Your task to perform on an android device: uninstall "Cash App" Image 0: 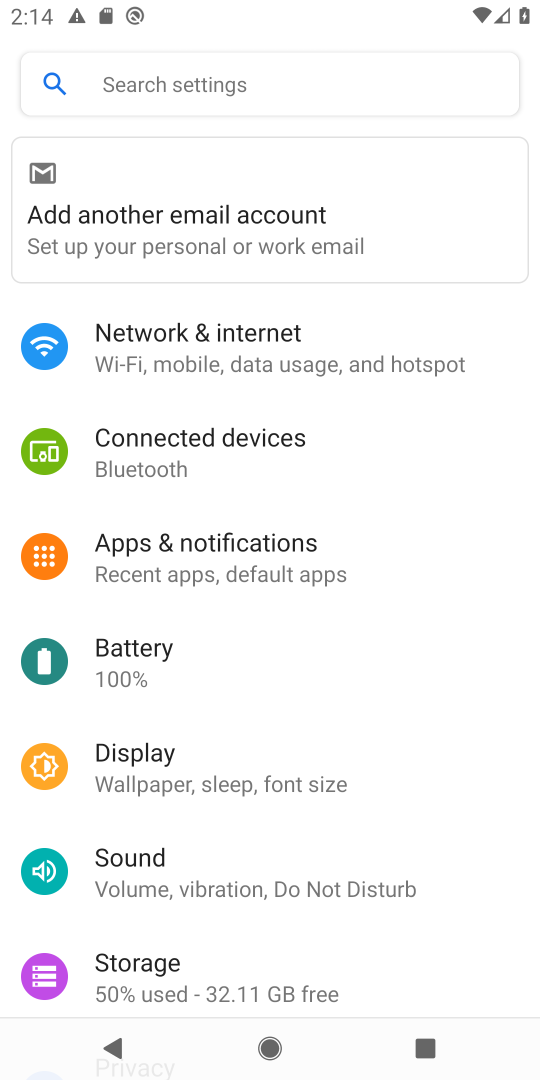
Step 0: press home button
Your task to perform on an android device: uninstall "Cash App" Image 1: 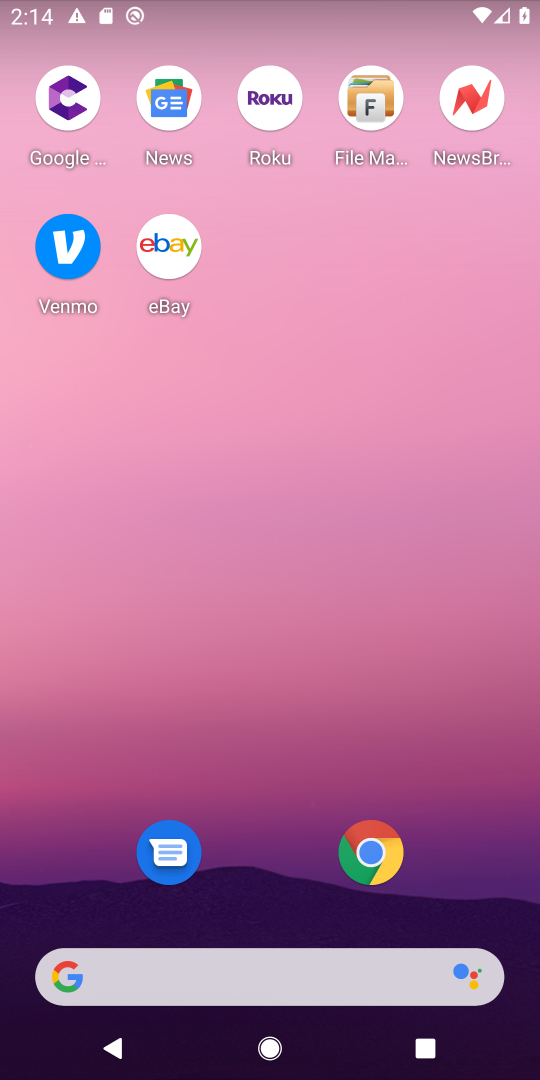
Step 1: drag from (266, 808) to (314, 21)
Your task to perform on an android device: uninstall "Cash App" Image 2: 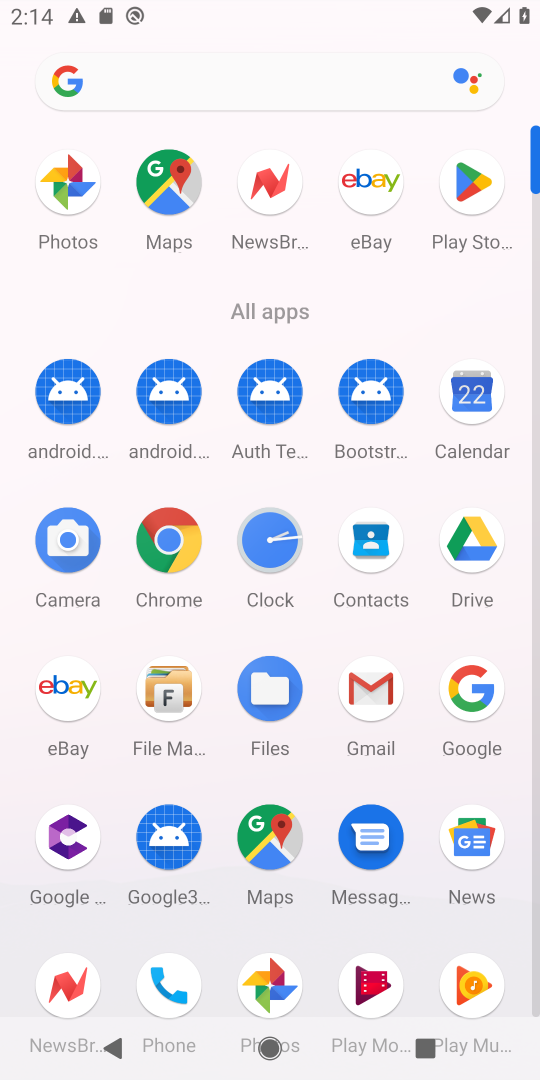
Step 2: click (471, 172)
Your task to perform on an android device: uninstall "Cash App" Image 3: 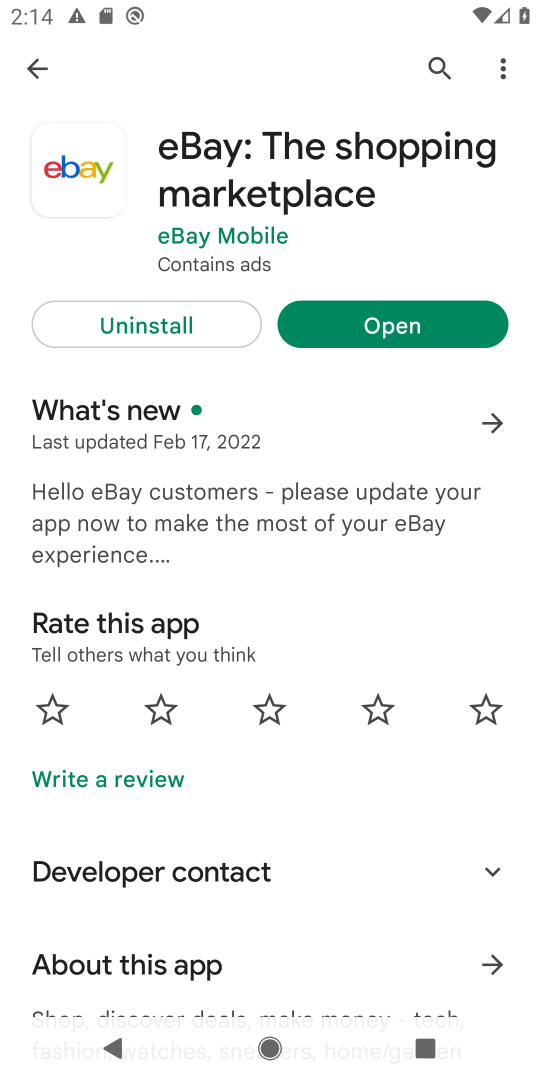
Step 3: click (435, 63)
Your task to perform on an android device: uninstall "Cash App" Image 4: 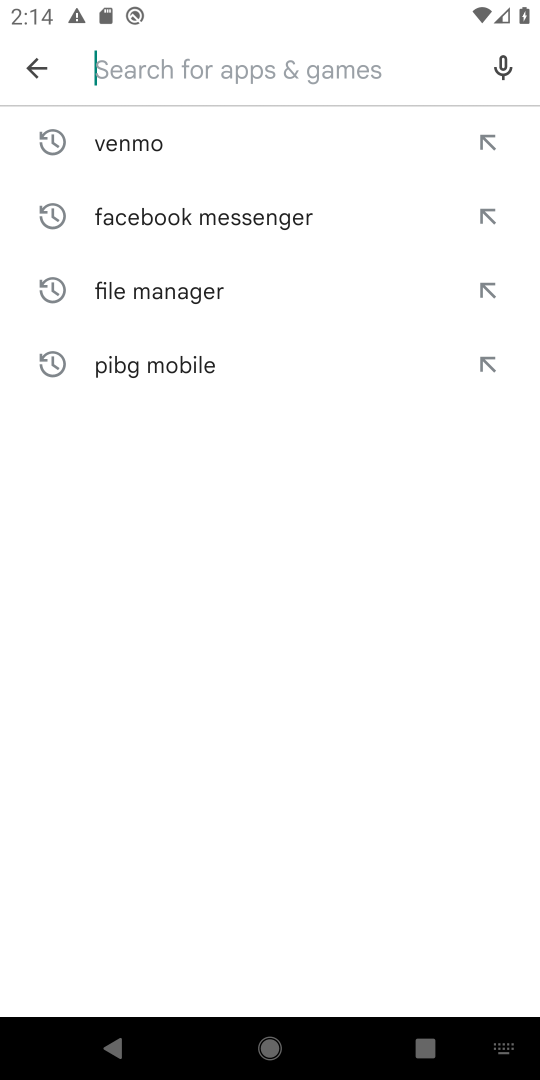
Step 4: type "Cash App"
Your task to perform on an android device: uninstall "Cash App" Image 5: 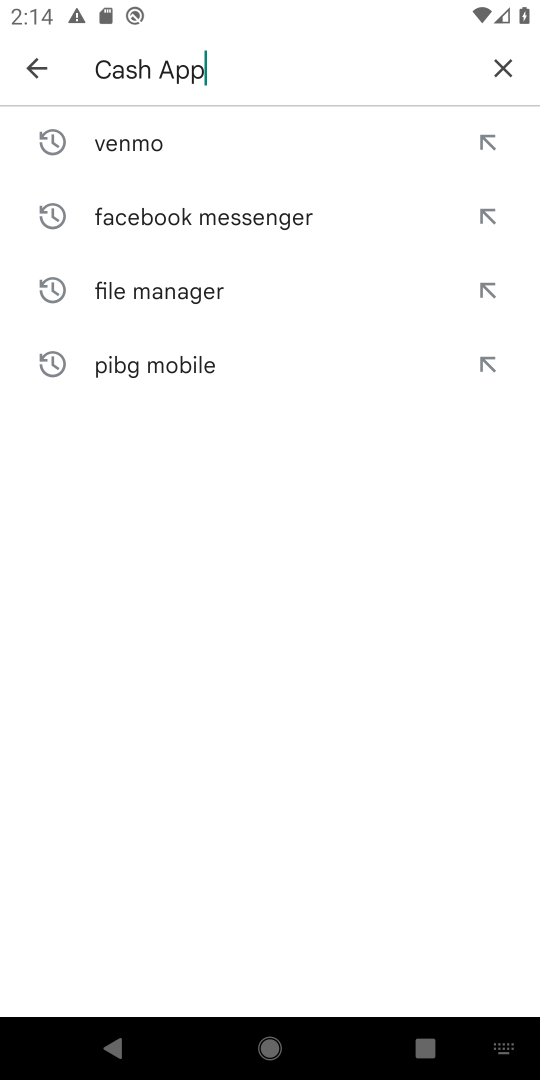
Step 5: type ""
Your task to perform on an android device: uninstall "Cash App" Image 6: 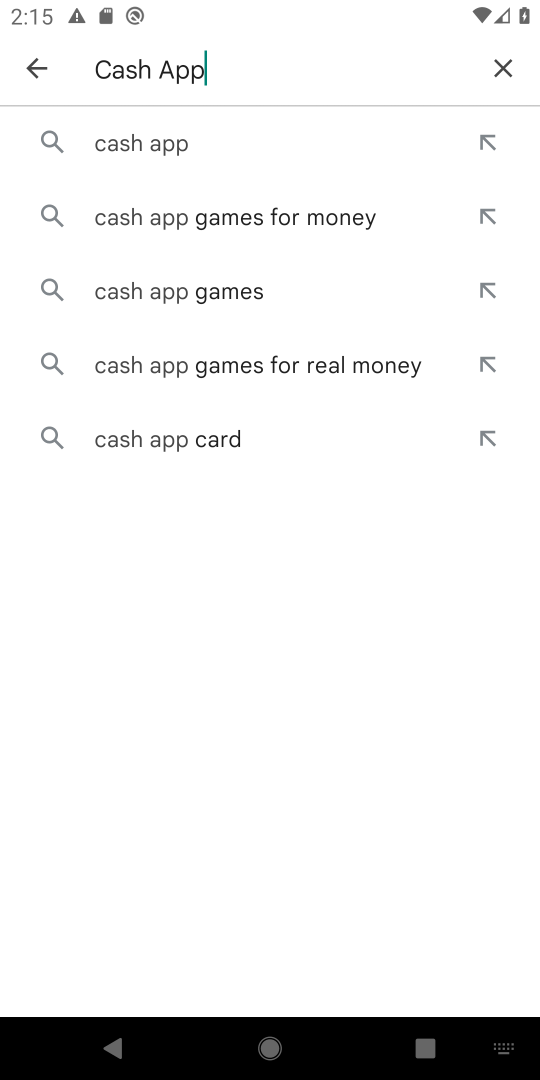
Step 6: click (140, 142)
Your task to perform on an android device: uninstall "Cash App" Image 7: 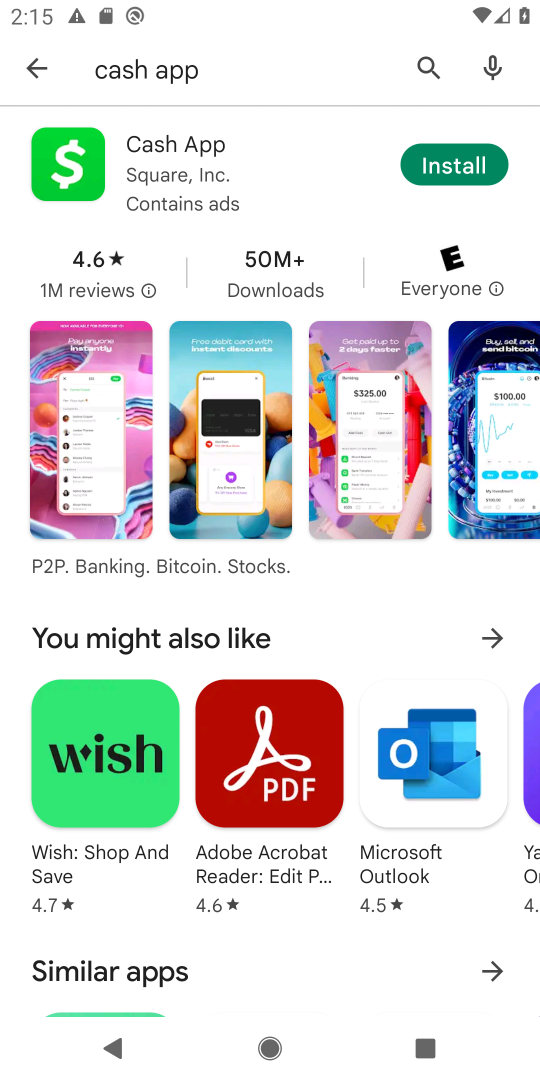
Step 7: task complete